Your task to perform on an android device: turn off data saver in the chrome app Image 0: 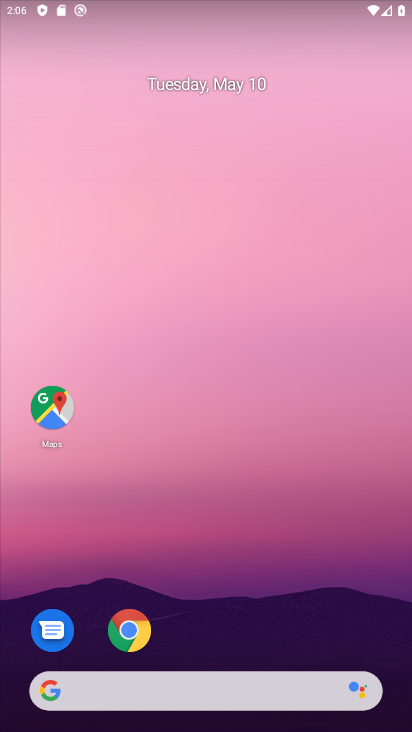
Step 0: drag from (351, 664) to (182, 76)
Your task to perform on an android device: turn off data saver in the chrome app Image 1: 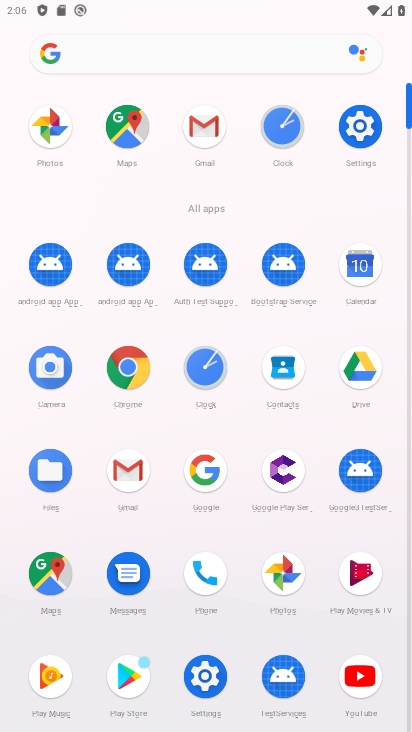
Step 1: click (117, 368)
Your task to perform on an android device: turn off data saver in the chrome app Image 2: 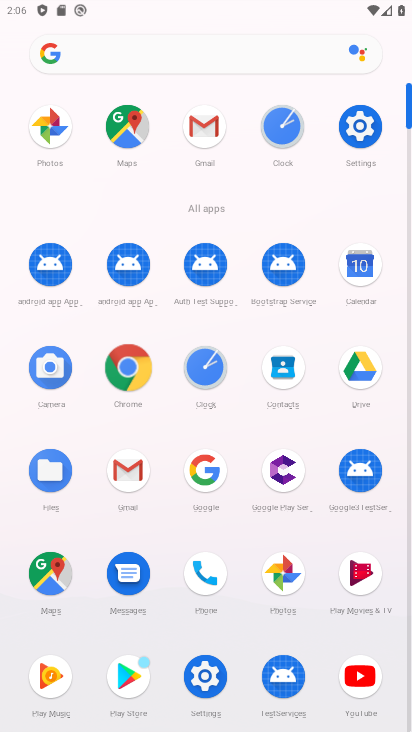
Step 2: click (119, 368)
Your task to perform on an android device: turn off data saver in the chrome app Image 3: 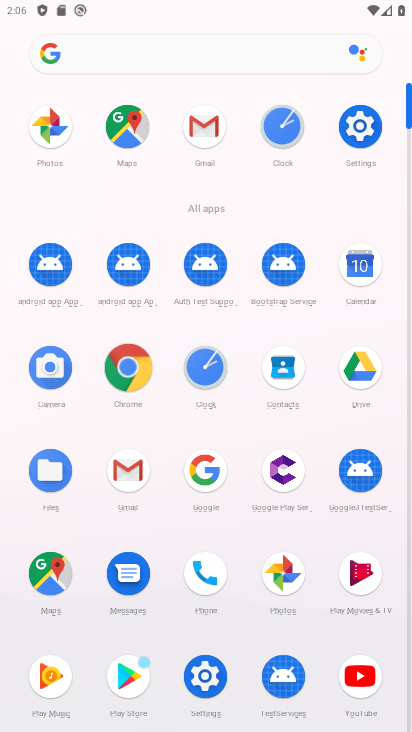
Step 3: click (123, 369)
Your task to perform on an android device: turn off data saver in the chrome app Image 4: 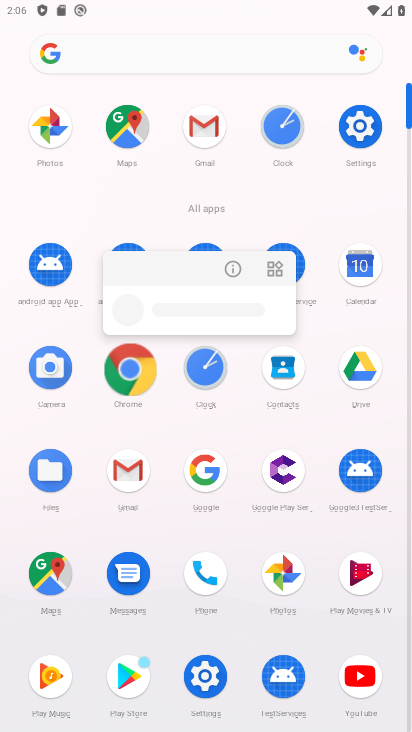
Step 4: click (123, 371)
Your task to perform on an android device: turn off data saver in the chrome app Image 5: 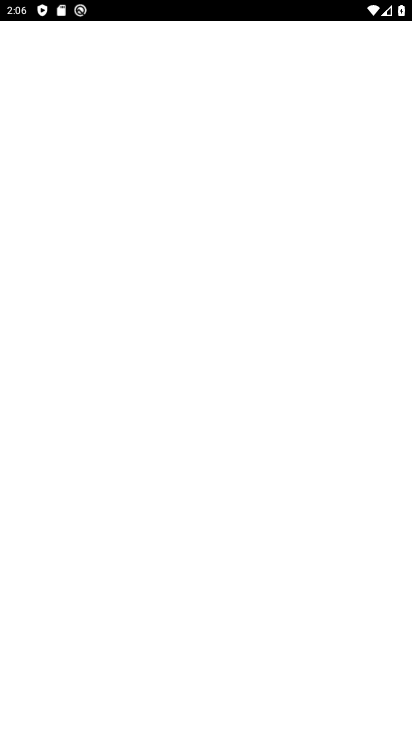
Step 5: click (135, 357)
Your task to perform on an android device: turn off data saver in the chrome app Image 6: 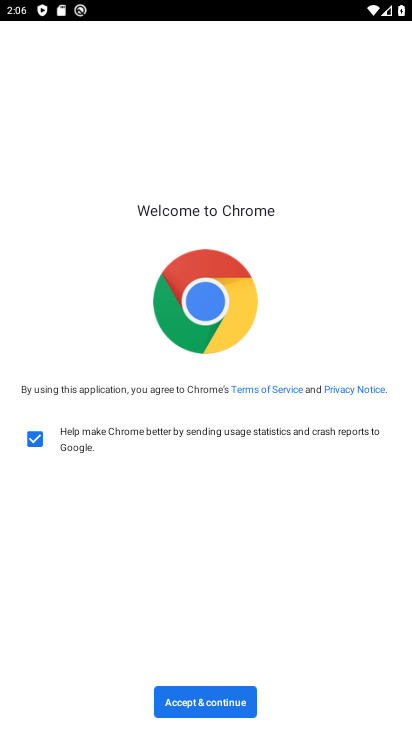
Step 6: click (222, 705)
Your task to perform on an android device: turn off data saver in the chrome app Image 7: 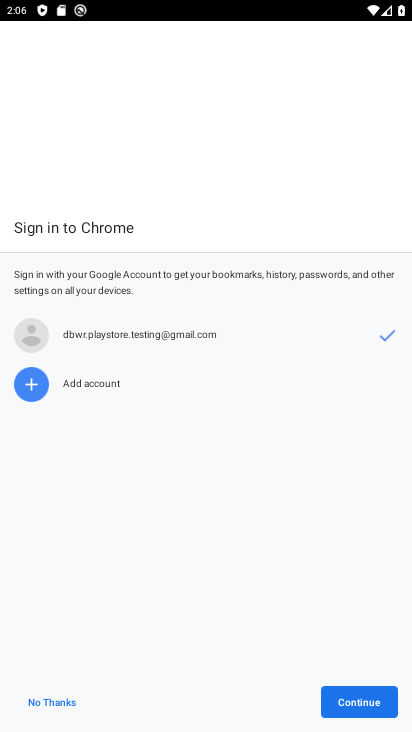
Step 7: click (222, 705)
Your task to perform on an android device: turn off data saver in the chrome app Image 8: 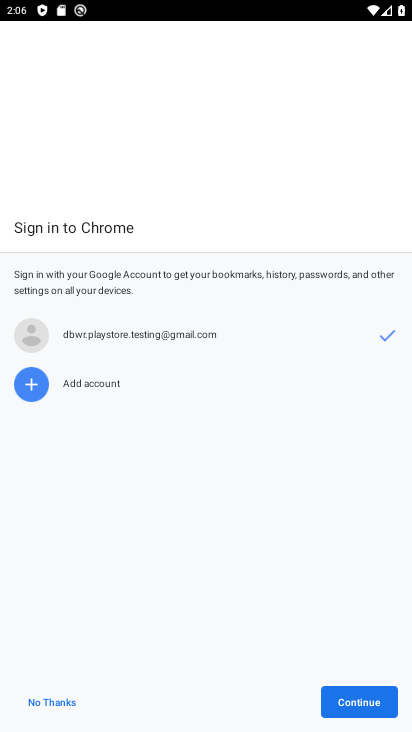
Step 8: click (215, 702)
Your task to perform on an android device: turn off data saver in the chrome app Image 9: 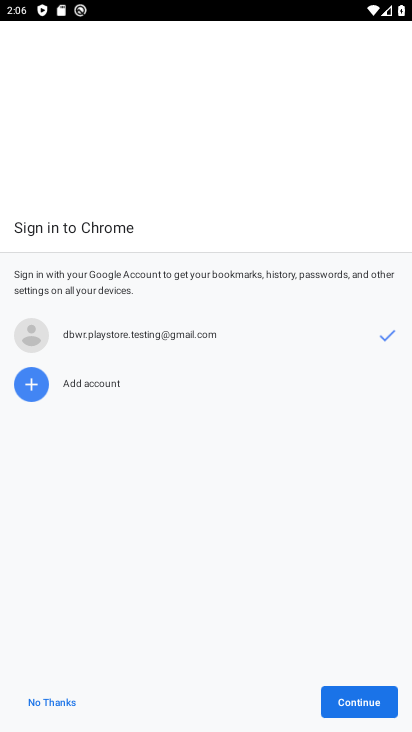
Step 9: click (336, 714)
Your task to perform on an android device: turn off data saver in the chrome app Image 10: 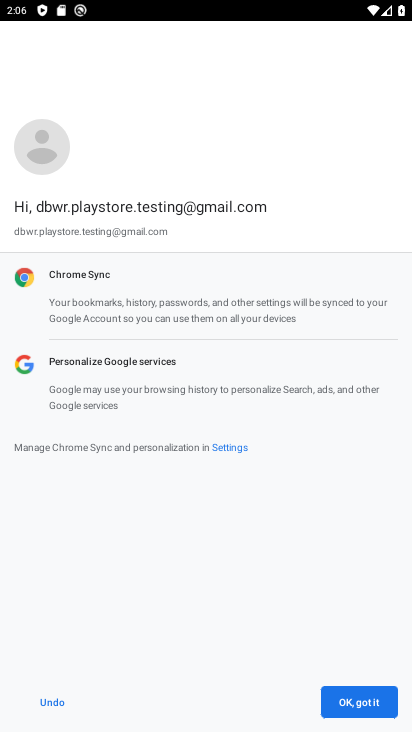
Step 10: click (354, 694)
Your task to perform on an android device: turn off data saver in the chrome app Image 11: 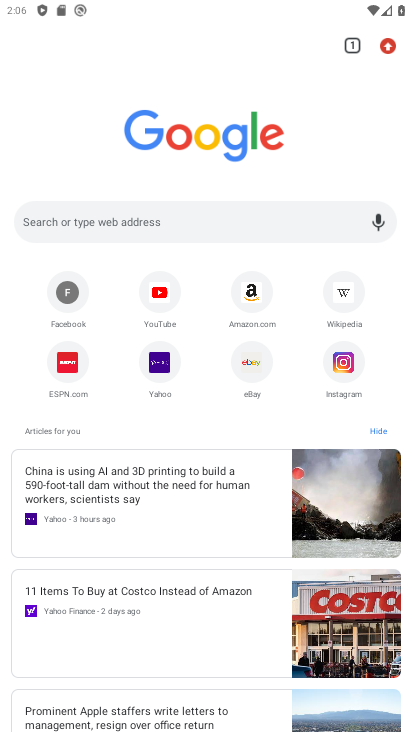
Step 11: click (394, 84)
Your task to perform on an android device: turn off data saver in the chrome app Image 12: 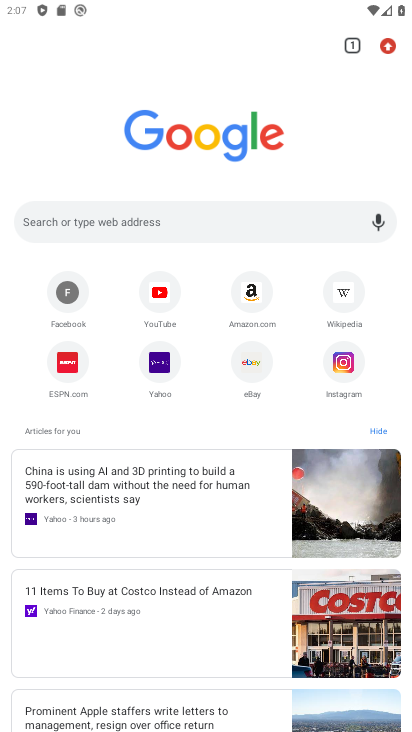
Step 12: click (389, 36)
Your task to perform on an android device: turn off data saver in the chrome app Image 13: 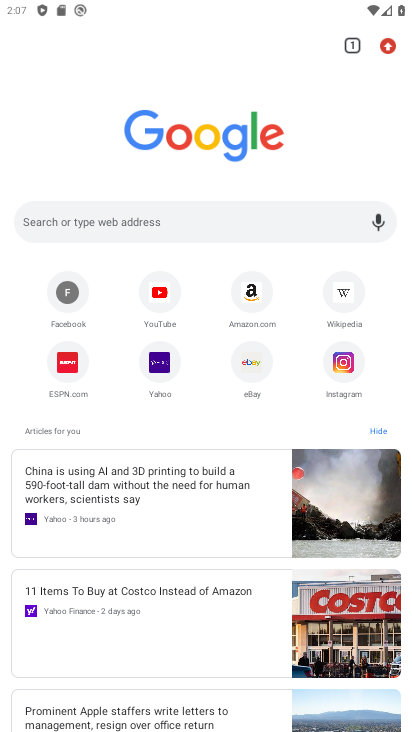
Step 13: click (392, 45)
Your task to perform on an android device: turn off data saver in the chrome app Image 14: 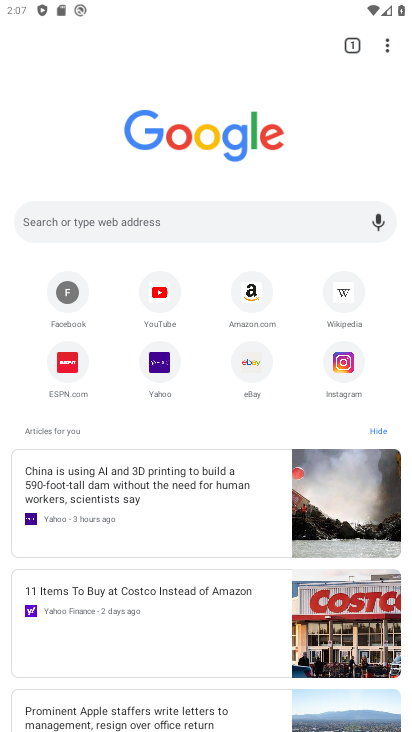
Step 14: click (386, 47)
Your task to perform on an android device: turn off data saver in the chrome app Image 15: 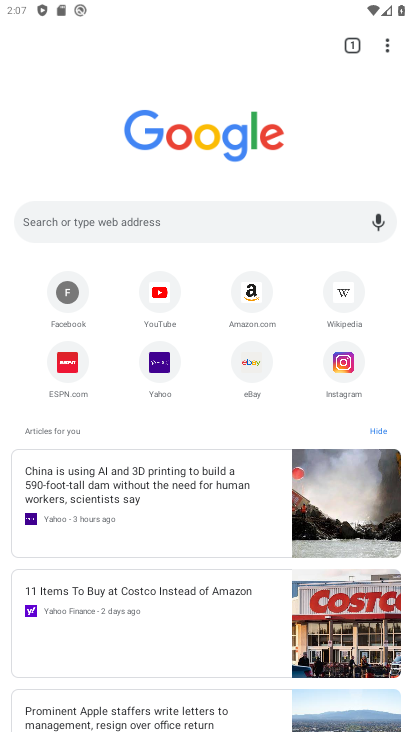
Step 15: click (386, 47)
Your task to perform on an android device: turn off data saver in the chrome app Image 16: 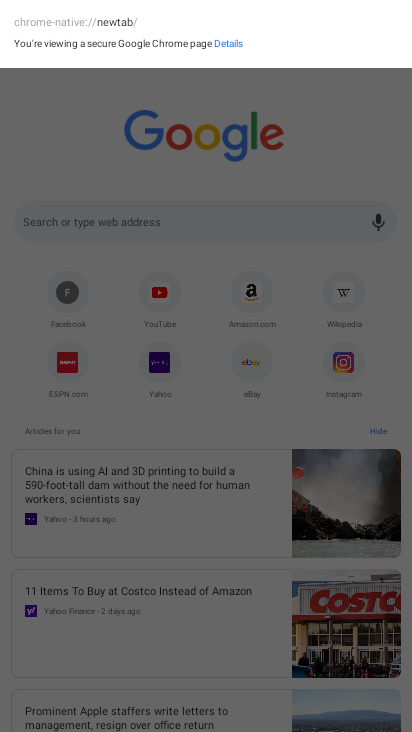
Step 16: click (56, 123)
Your task to perform on an android device: turn off data saver in the chrome app Image 17: 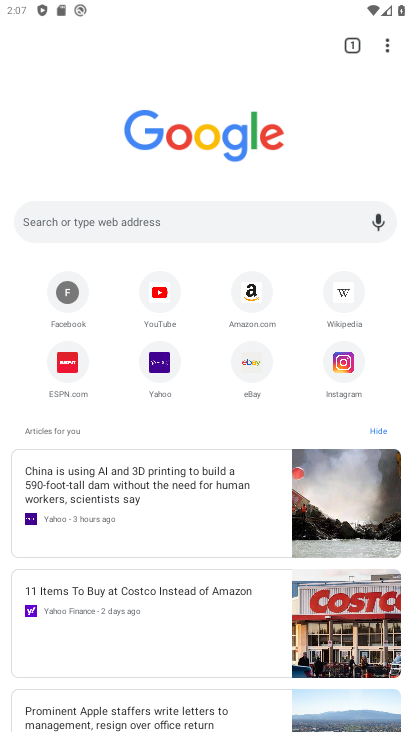
Step 17: drag from (385, 43) to (237, 432)
Your task to perform on an android device: turn off data saver in the chrome app Image 18: 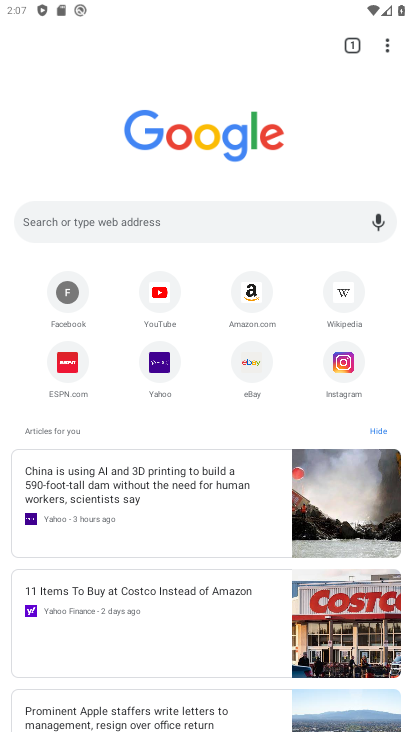
Step 18: click (230, 439)
Your task to perform on an android device: turn off data saver in the chrome app Image 19: 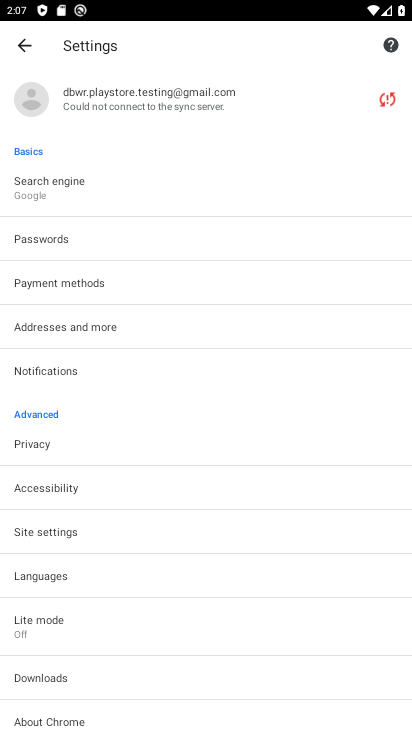
Step 19: drag from (123, 577) to (90, 170)
Your task to perform on an android device: turn off data saver in the chrome app Image 20: 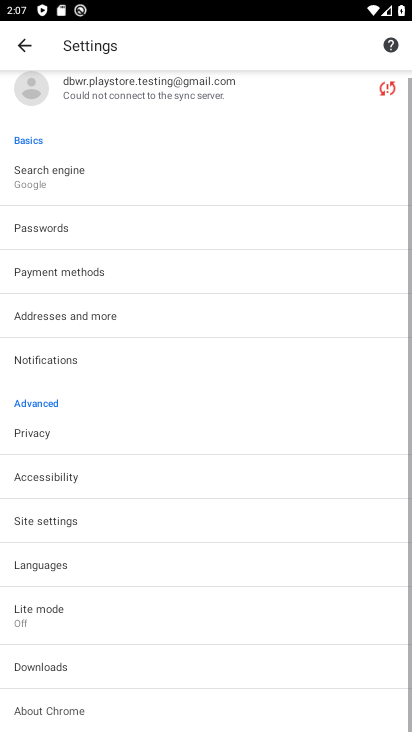
Step 20: drag from (144, 446) to (96, 34)
Your task to perform on an android device: turn off data saver in the chrome app Image 21: 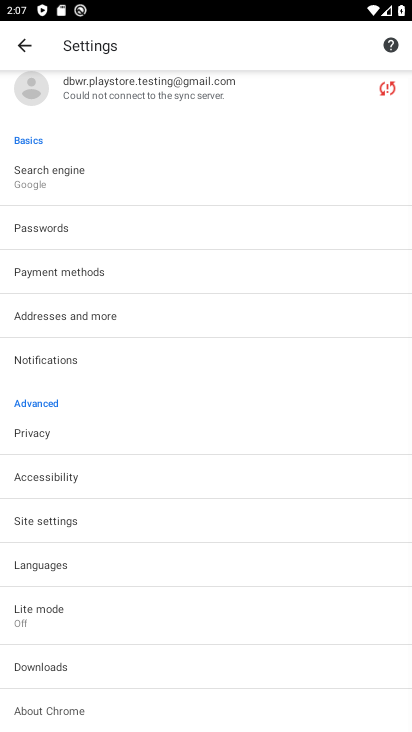
Step 21: drag from (186, 441) to (145, 116)
Your task to perform on an android device: turn off data saver in the chrome app Image 22: 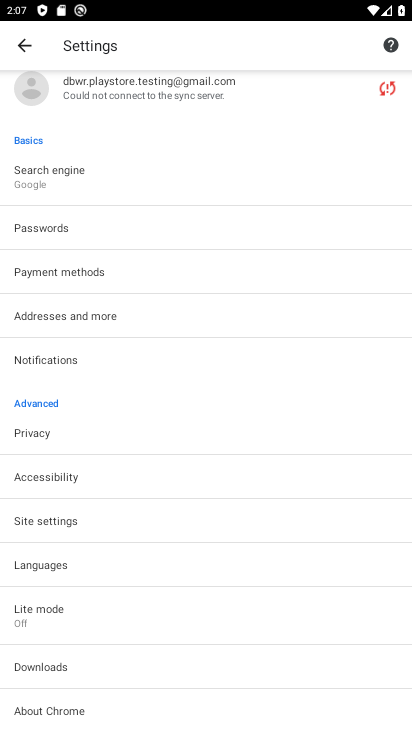
Step 22: click (49, 609)
Your task to perform on an android device: turn off data saver in the chrome app Image 23: 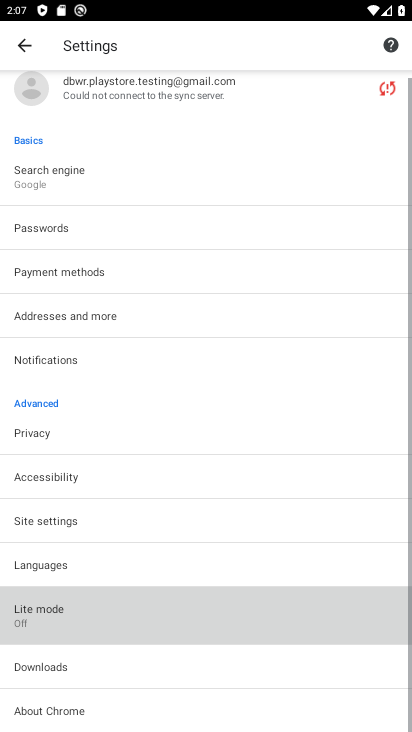
Step 23: click (49, 619)
Your task to perform on an android device: turn off data saver in the chrome app Image 24: 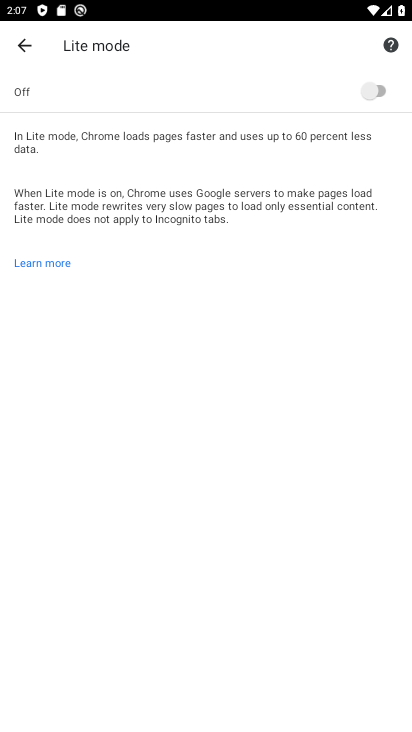
Step 24: task complete